Your task to perform on an android device: Open Google Image 0: 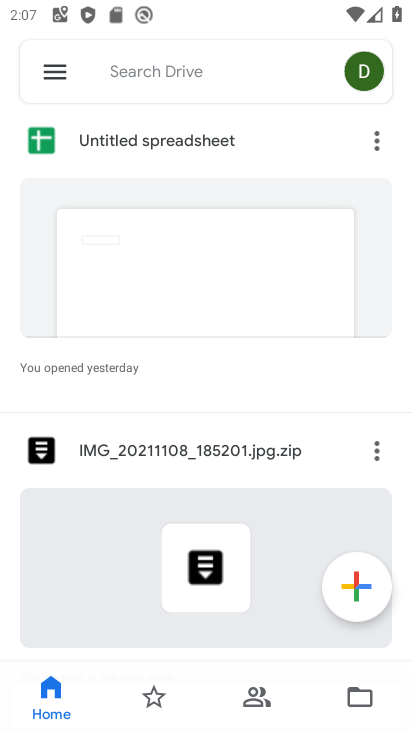
Step 0: press home button
Your task to perform on an android device: Open Google Image 1: 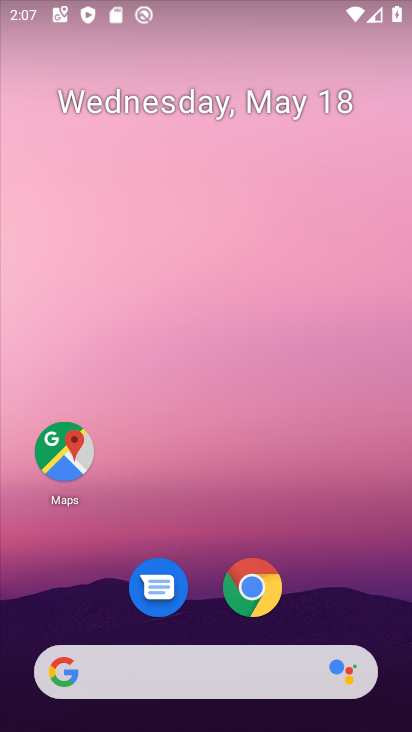
Step 1: drag from (364, 601) to (327, 8)
Your task to perform on an android device: Open Google Image 2: 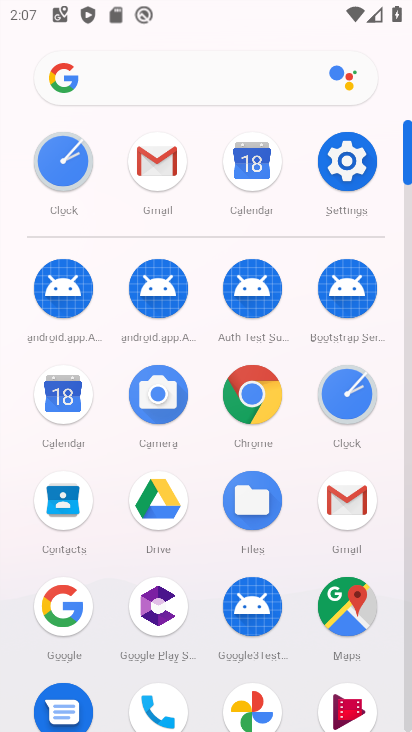
Step 2: click (56, 612)
Your task to perform on an android device: Open Google Image 3: 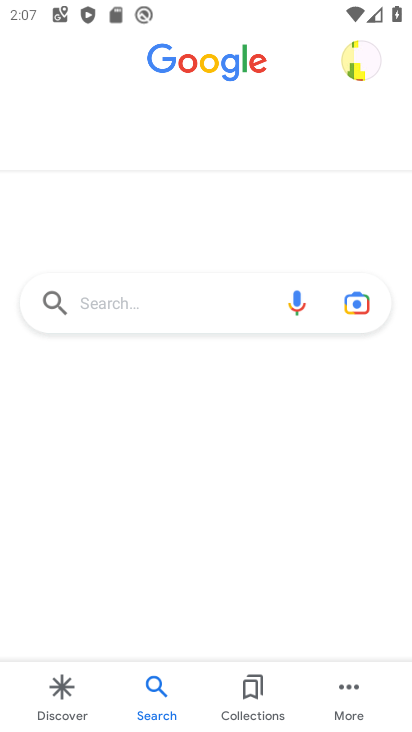
Step 3: task complete